Your task to perform on an android device: Open the map Image 0: 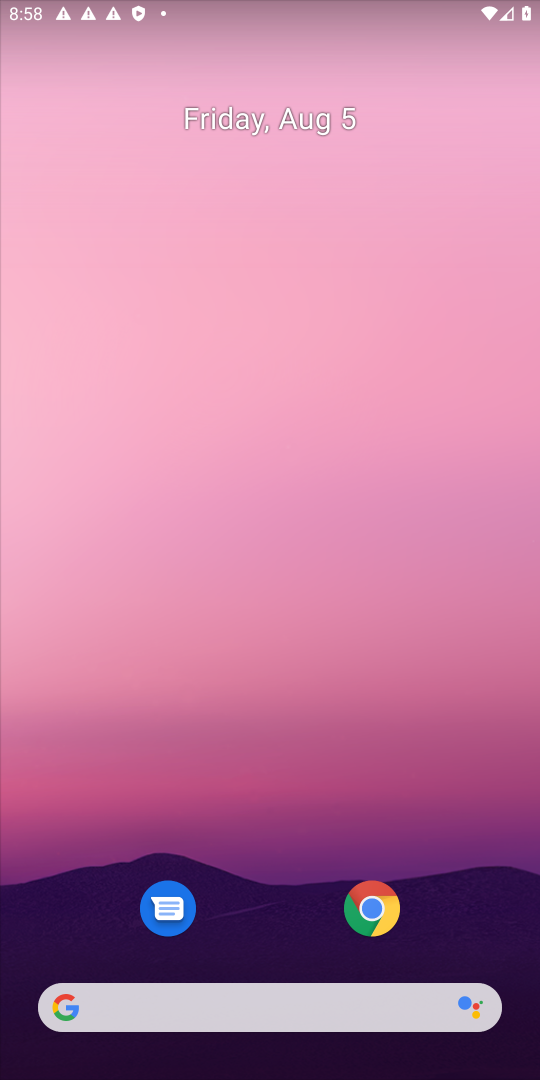
Step 0: drag from (268, 929) to (162, 194)
Your task to perform on an android device: Open the map Image 1: 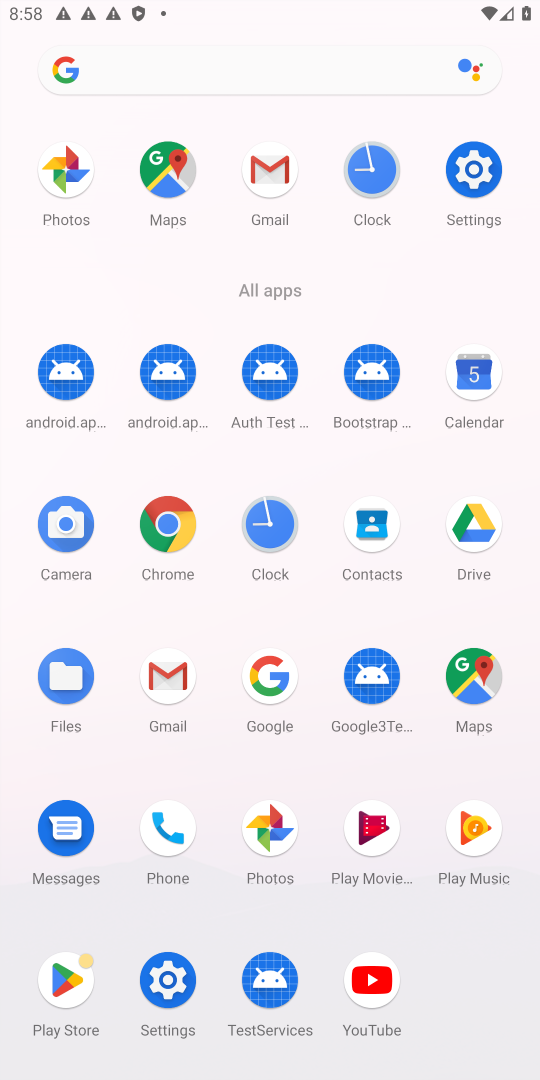
Step 1: click (164, 185)
Your task to perform on an android device: Open the map Image 2: 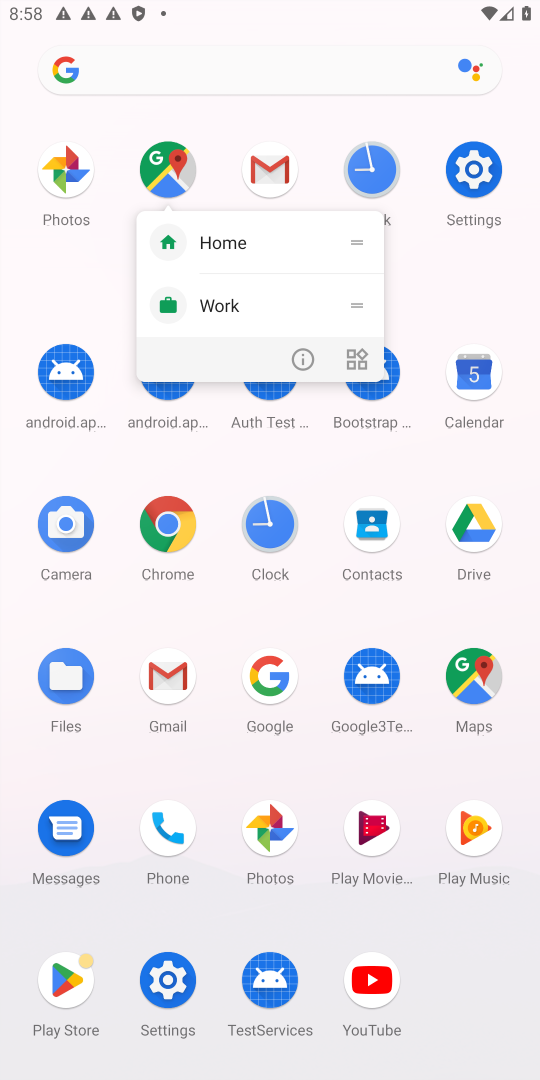
Step 2: click (164, 185)
Your task to perform on an android device: Open the map Image 3: 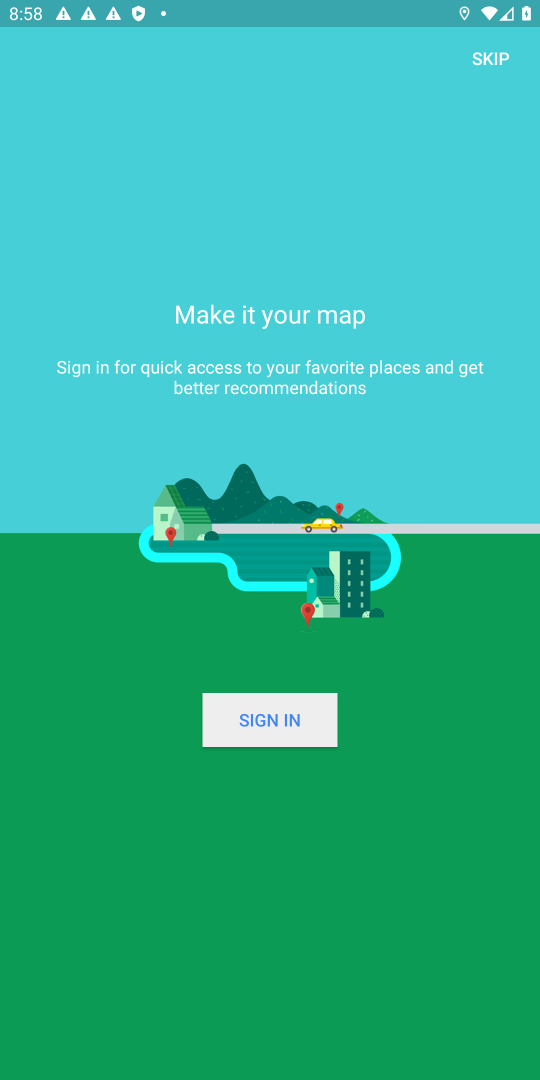
Step 3: task complete